Your task to perform on an android device: turn on priority inbox in the gmail app Image 0: 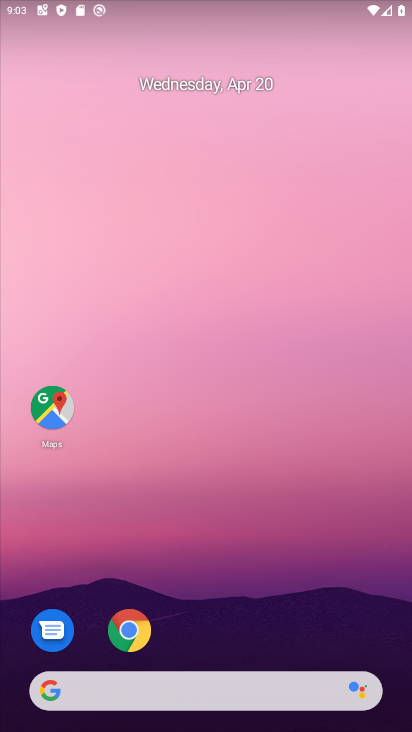
Step 0: drag from (340, 602) to (258, 143)
Your task to perform on an android device: turn on priority inbox in the gmail app Image 1: 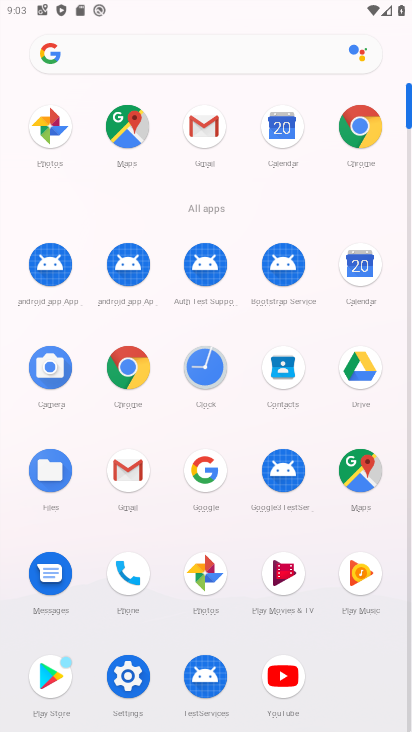
Step 1: click (203, 137)
Your task to perform on an android device: turn on priority inbox in the gmail app Image 2: 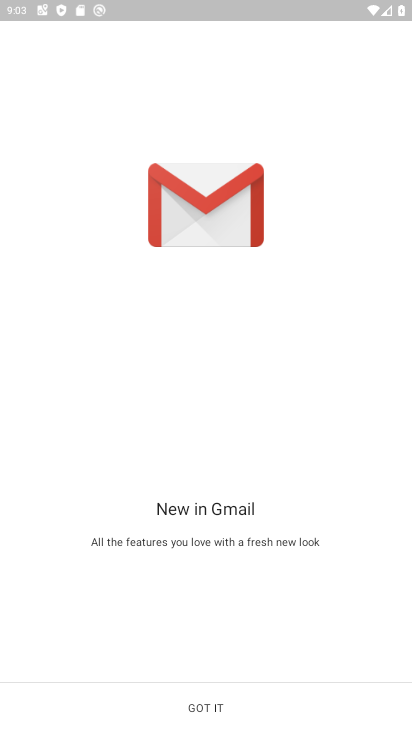
Step 2: click (200, 712)
Your task to perform on an android device: turn on priority inbox in the gmail app Image 3: 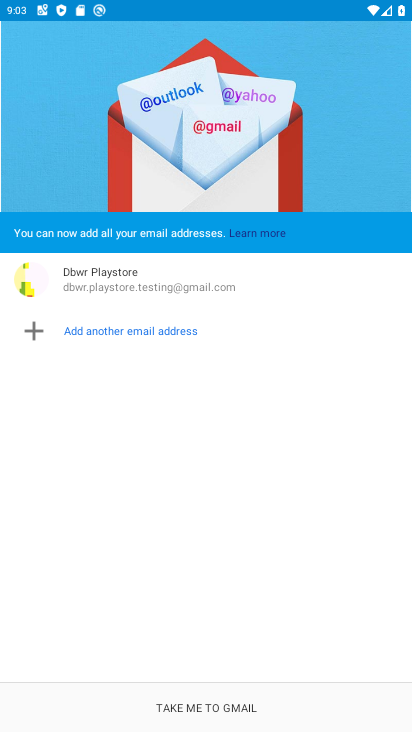
Step 3: click (196, 712)
Your task to perform on an android device: turn on priority inbox in the gmail app Image 4: 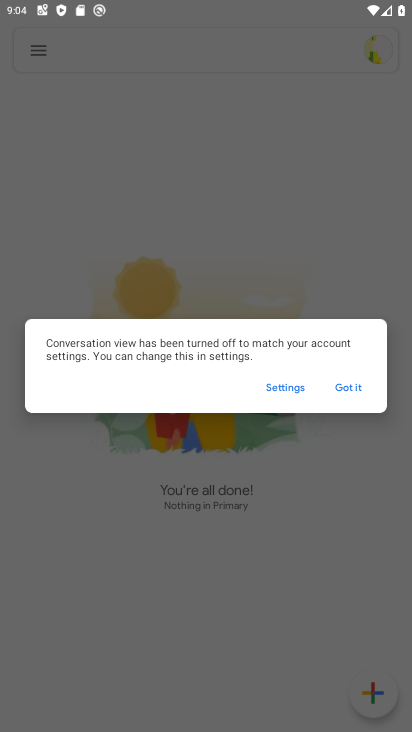
Step 4: click (353, 388)
Your task to perform on an android device: turn on priority inbox in the gmail app Image 5: 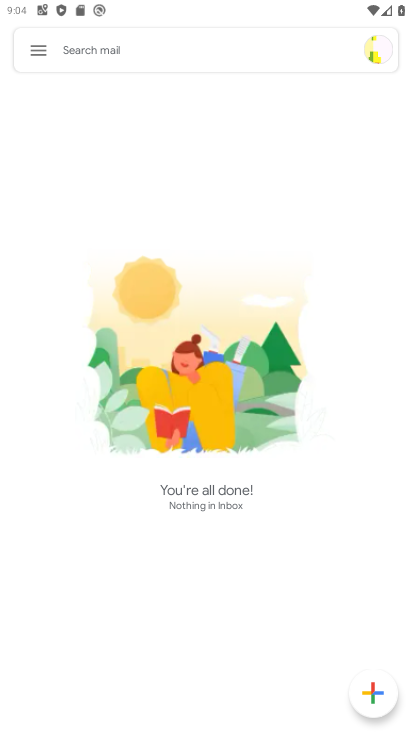
Step 5: click (35, 47)
Your task to perform on an android device: turn on priority inbox in the gmail app Image 6: 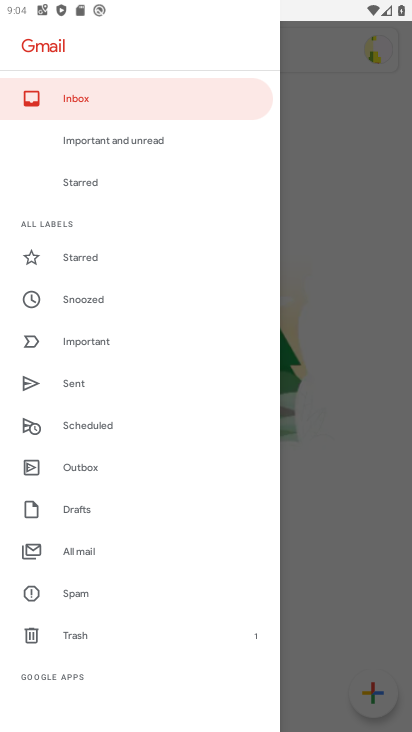
Step 6: drag from (145, 604) to (100, 159)
Your task to perform on an android device: turn on priority inbox in the gmail app Image 7: 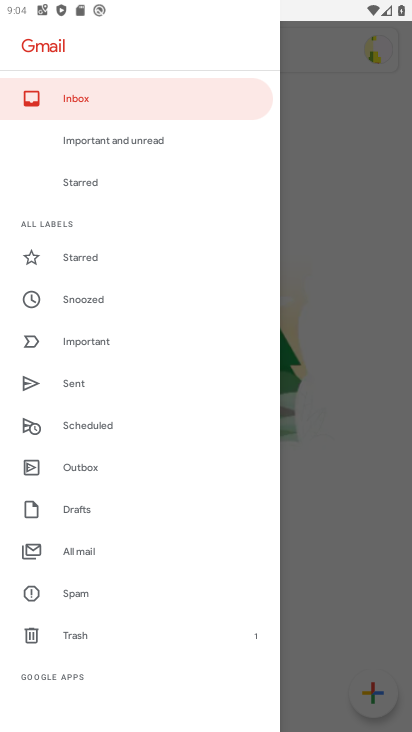
Step 7: drag from (184, 642) to (202, 196)
Your task to perform on an android device: turn on priority inbox in the gmail app Image 8: 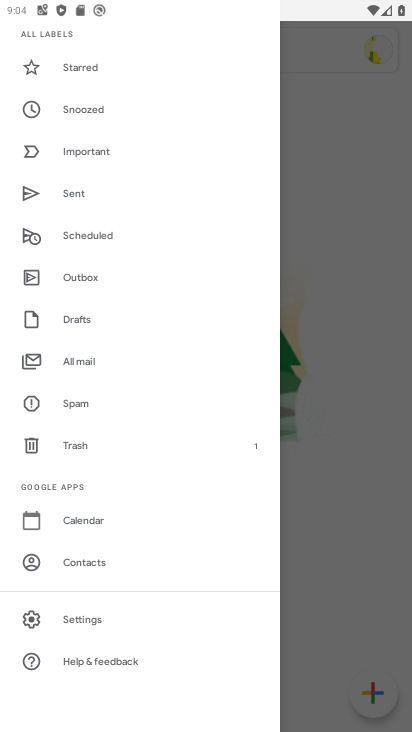
Step 8: click (178, 621)
Your task to perform on an android device: turn on priority inbox in the gmail app Image 9: 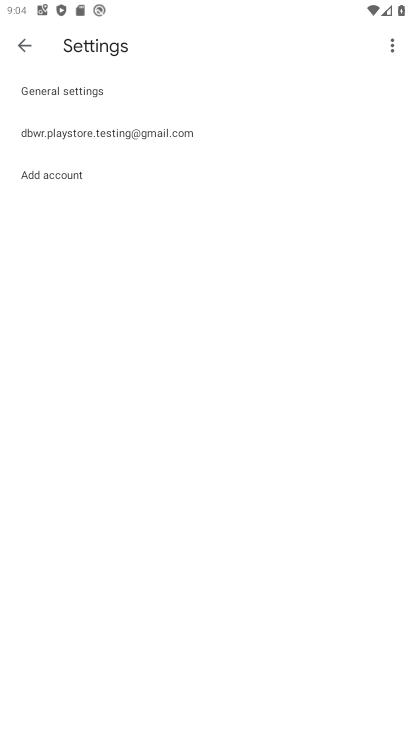
Step 9: click (223, 132)
Your task to perform on an android device: turn on priority inbox in the gmail app Image 10: 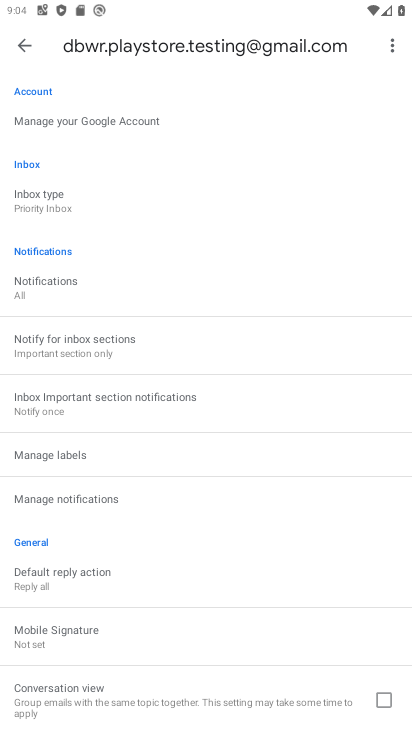
Step 10: task complete